Your task to perform on an android device: change keyboard looks Image 0: 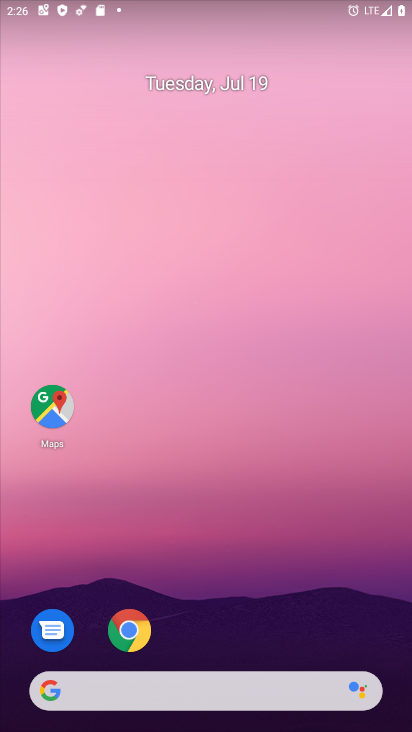
Step 0: drag from (213, 654) to (243, 0)
Your task to perform on an android device: change keyboard looks Image 1: 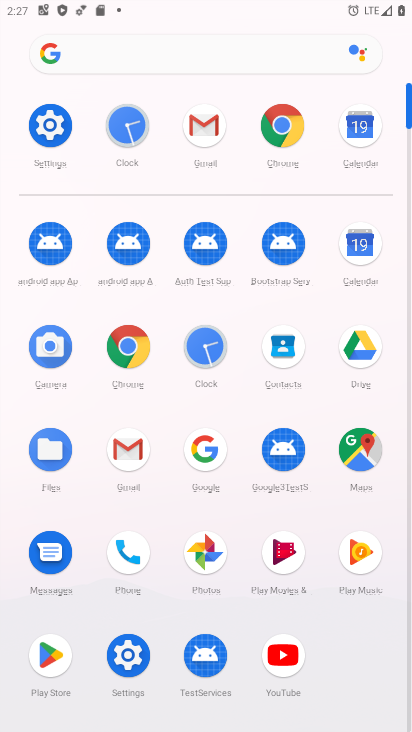
Step 1: click (48, 122)
Your task to perform on an android device: change keyboard looks Image 2: 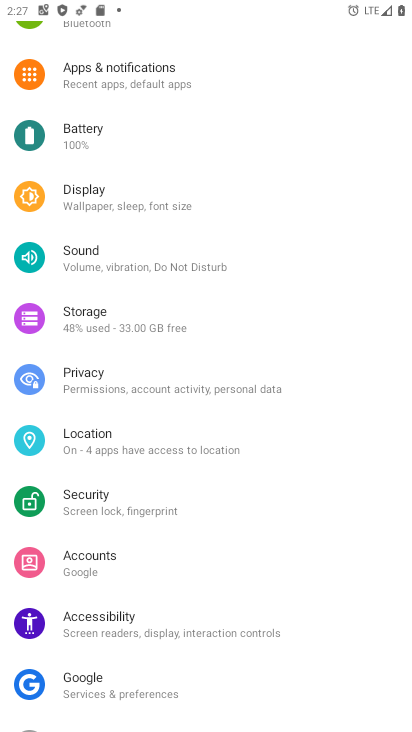
Step 2: drag from (126, 665) to (172, 118)
Your task to perform on an android device: change keyboard looks Image 3: 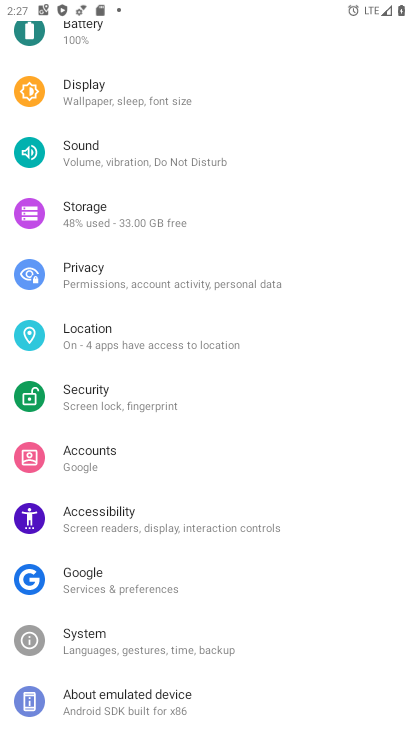
Step 3: click (124, 629)
Your task to perform on an android device: change keyboard looks Image 4: 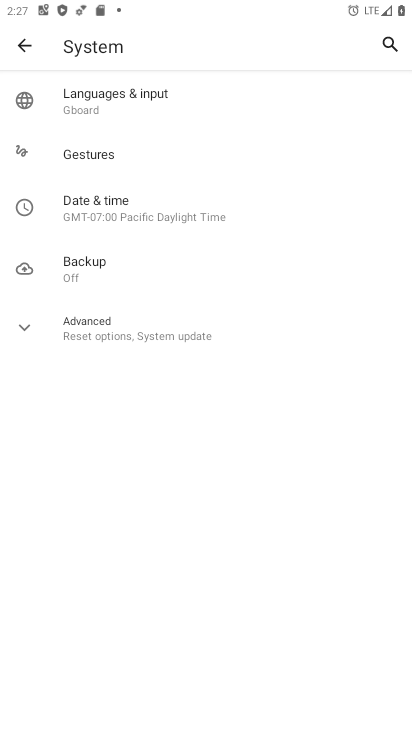
Step 4: click (134, 102)
Your task to perform on an android device: change keyboard looks Image 5: 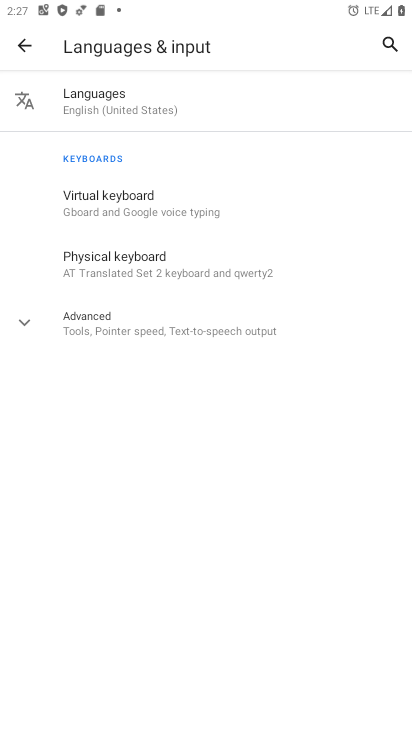
Step 5: click (170, 201)
Your task to perform on an android device: change keyboard looks Image 6: 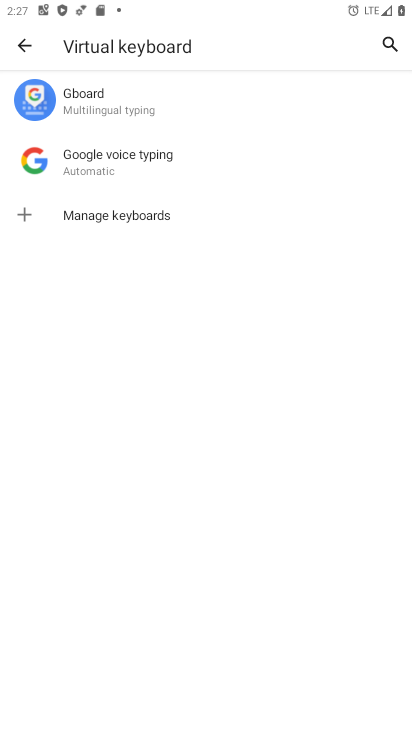
Step 6: click (125, 92)
Your task to perform on an android device: change keyboard looks Image 7: 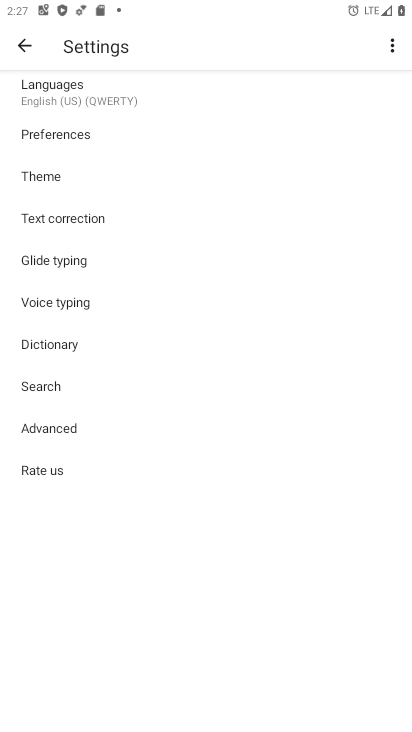
Step 7: click (66, 173)
Your task to perform on an android device: change keyboard looks Image 8: 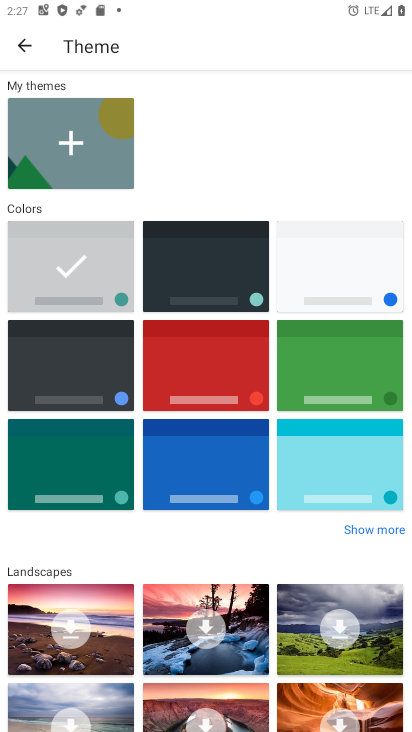
Step 8: click (61, 358)
Your task to perform on an android device: change keyboard looks Image 9: 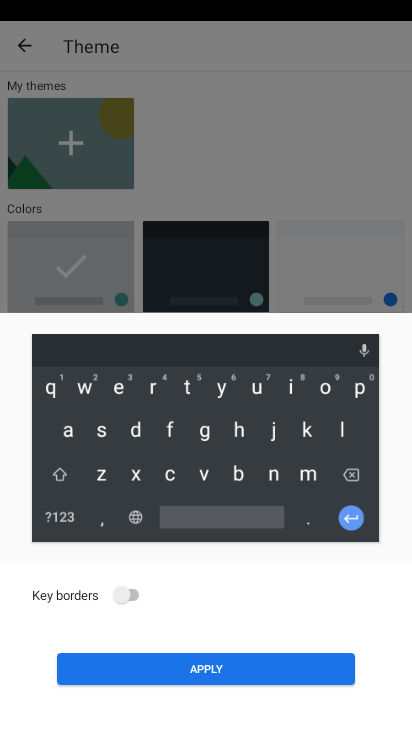
Step 9: click (259, 675)
Your task to perform on an android device: change keyboard looks Image 10: 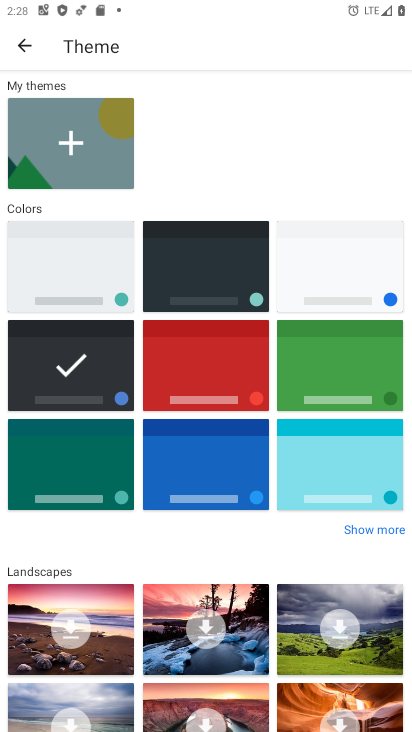
Step 10: task complete